Your task to perform on an android device: allow cookies in the chrome app Image 0: 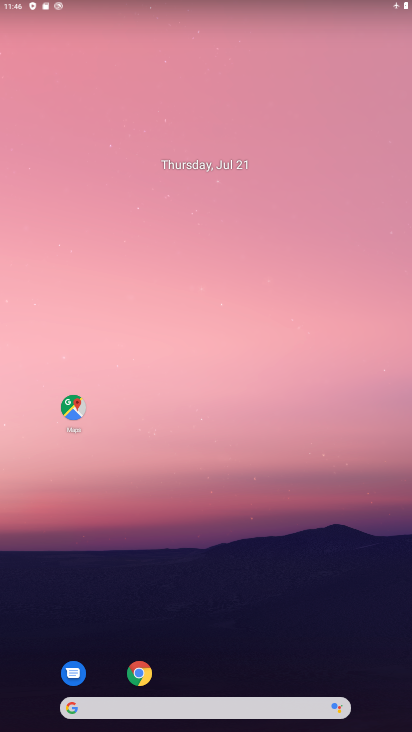
Step 0: drag from (203, 658) to (200, 1)
Your task to perform on an android device: allow cookies in the chrome app Image 1: 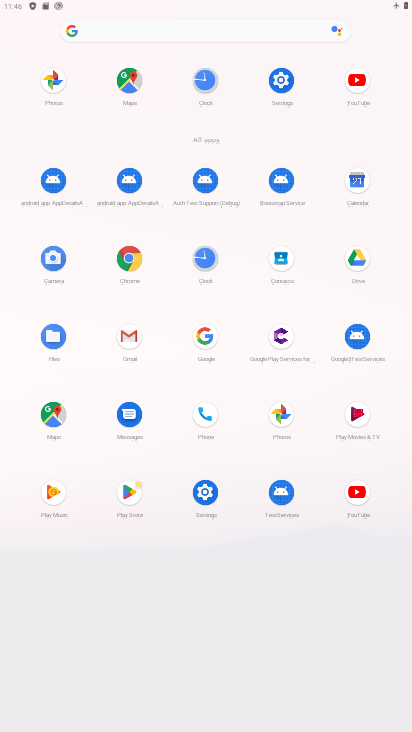
Step 1: click (129, 262)
Your task to perform on an android device: allow cookies in the chrome app Image 2: 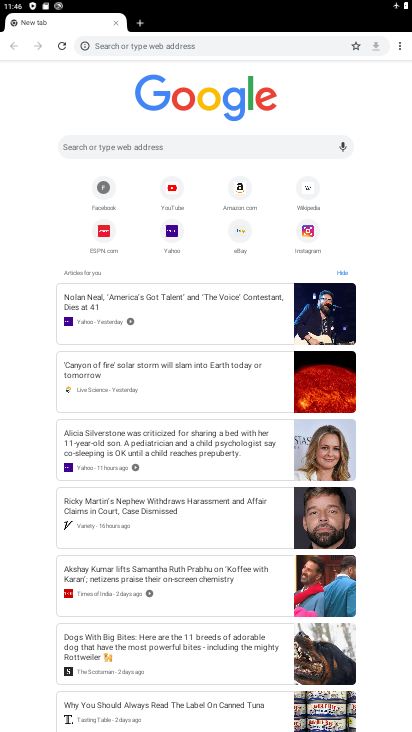
Step 2: drag from (395, 45) to (303, 210)
Your task to perform on an android device: allow cookies in the chrome app Image 3: 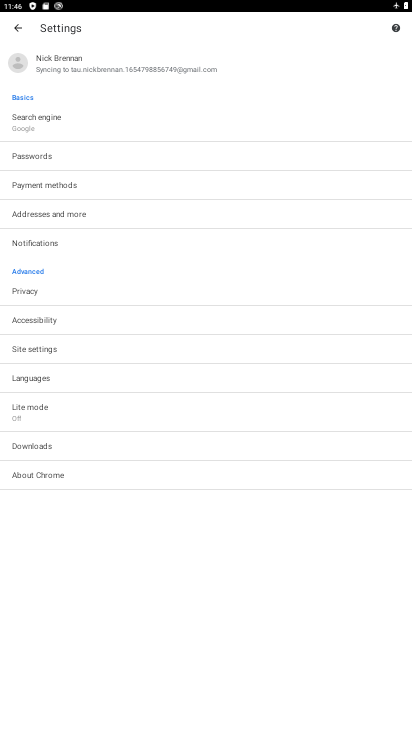
Step 3: click (57, 343)
Your task to perform on an android device: allow cookies in the chrome app Image 4: 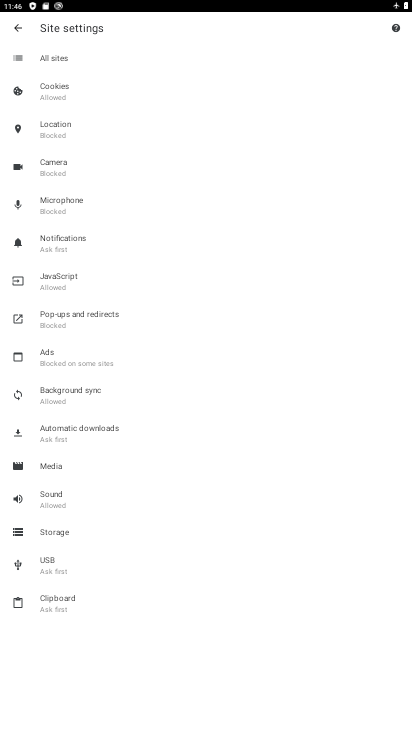
Step 4: click (105, 97)
Your task to perform on an android device: allow cookies in the chrome app Image 5: 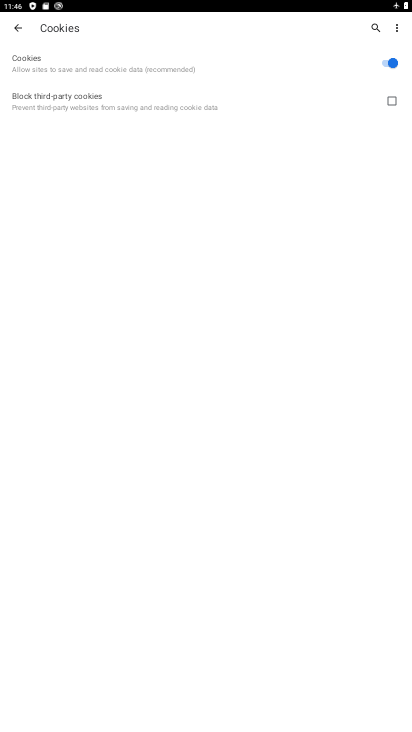
Step 5: task complete